Your task to perform on an android device: see creations saved in the google photos Image 0: 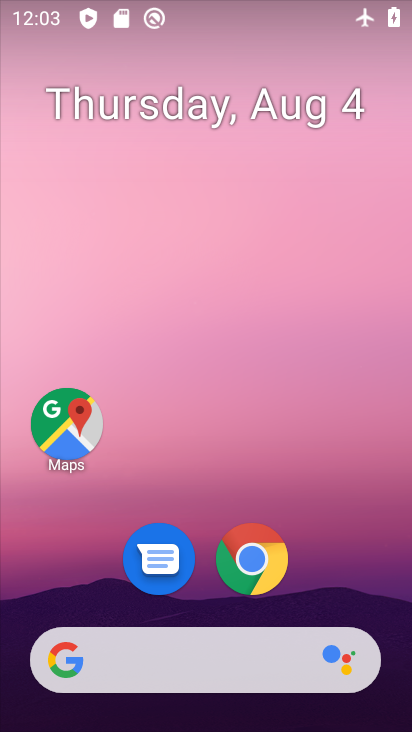
Step 0: drag from (233, 647) to (200, 283)
Your task to perform on an android device: see creations saved in the google photos Image 1: 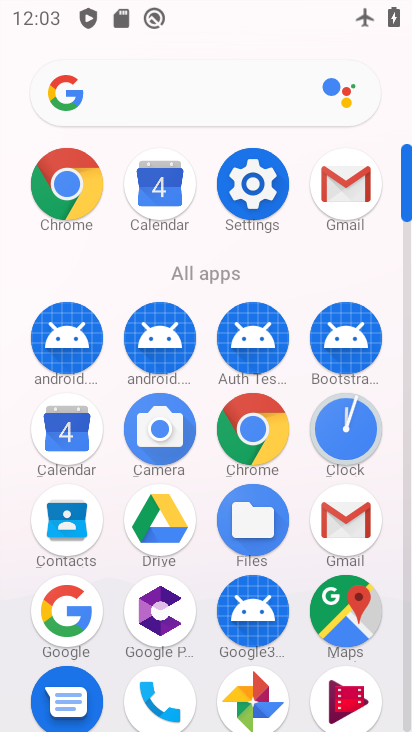
Step 1: click (255, 701)
Your task to perform on an android device: see creations saved in the google photos Image 2: 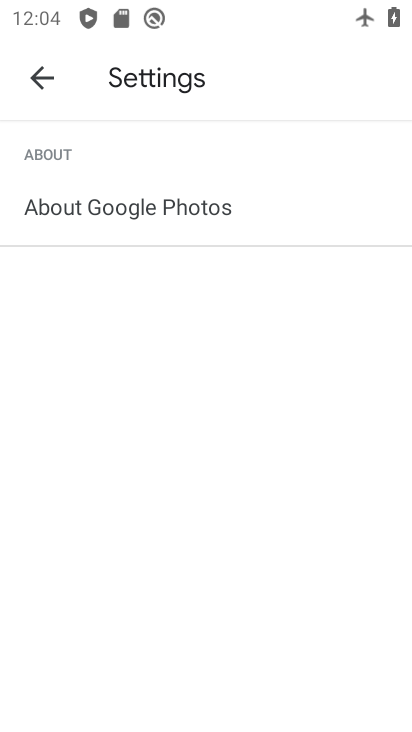
Step 2: press back button
Your task to perform on an android device: see creations saved in the google photos Image 3: 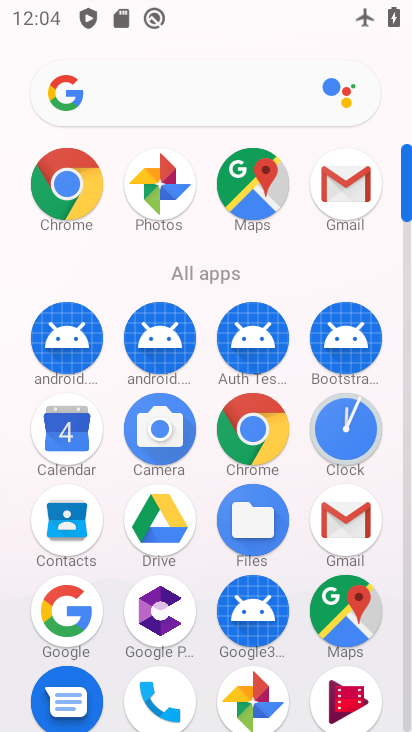
Step 3: click (165, 183)
Your task to perform on an android device: see creations saved in the google photos Image 4: 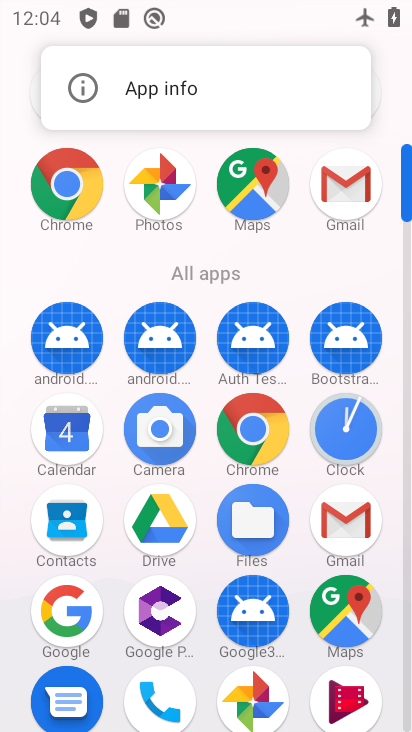
Step 4: click (166, 194)
Your task to perform on an android device: see creations saved in the google photos Image 5: 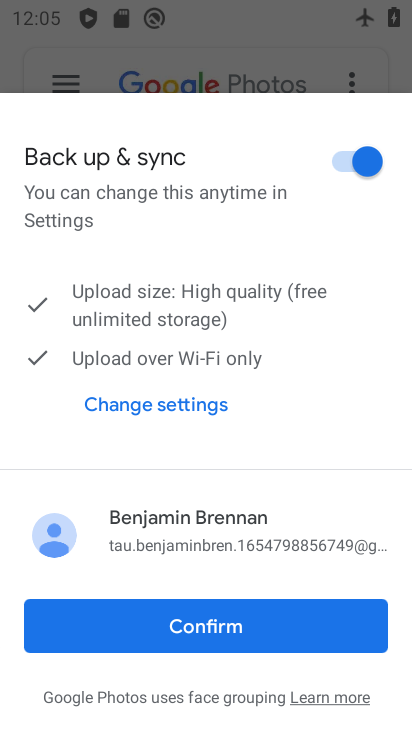
Step 5: click (221, 636)
Your task to perform on an android device: see creations saved in the google photos Image 6: 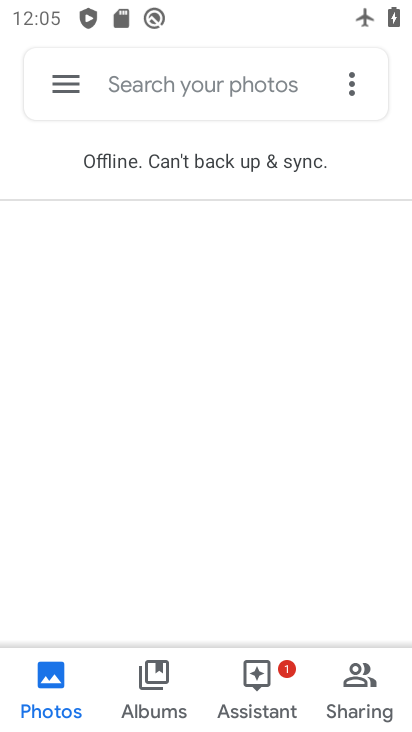
Step 6: click (229, 84)
Your task to perform on an android device: see creations saved in the google photos Image 7: 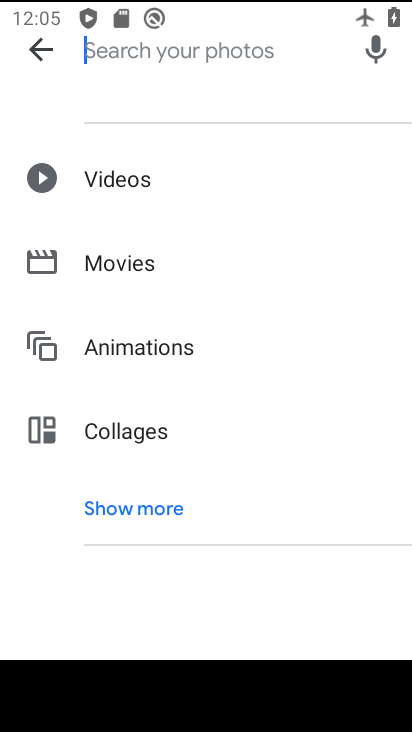
Step 7: click (143, 506)
Your task to perform on an android device: see creations saved in the google photos Image 8: 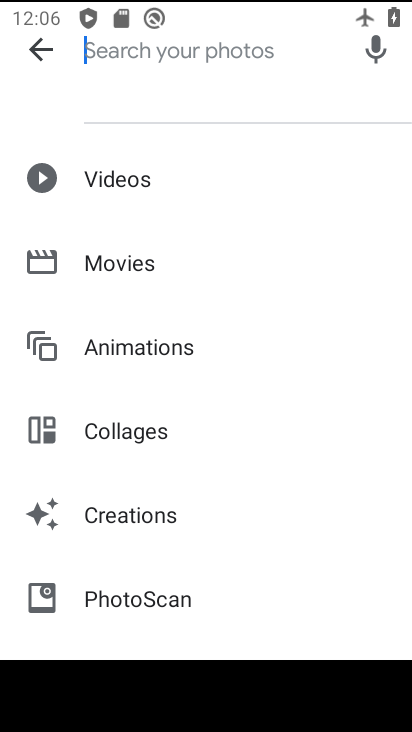
Step 8: drag from (170, 547) to (263, 314)
Your task to perform on an android device: see creations saved in the google photos Image 9: 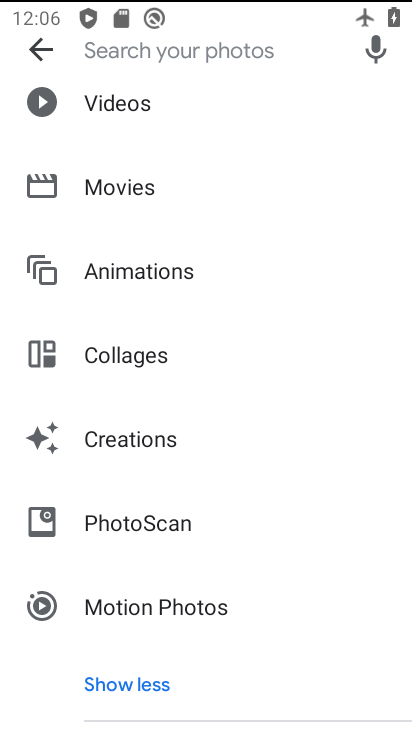
Step 9: click (136, 684)
Your task to perform on an android device: see creations saved in the google photos Image 10: 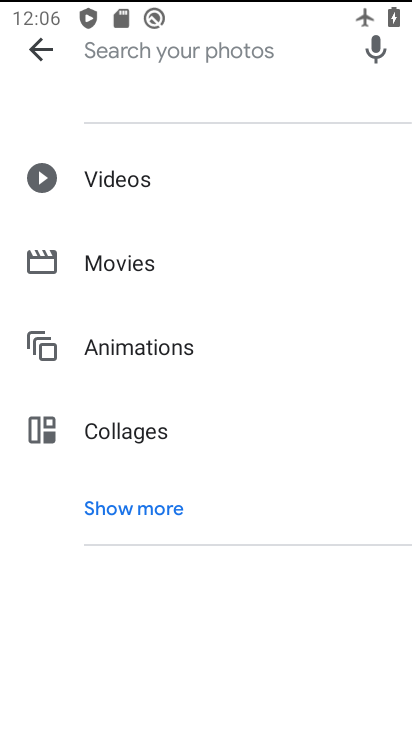
Step 10: click (167, 517)
Your task to perform on an android device: see creations saved in the google photos Image 11: 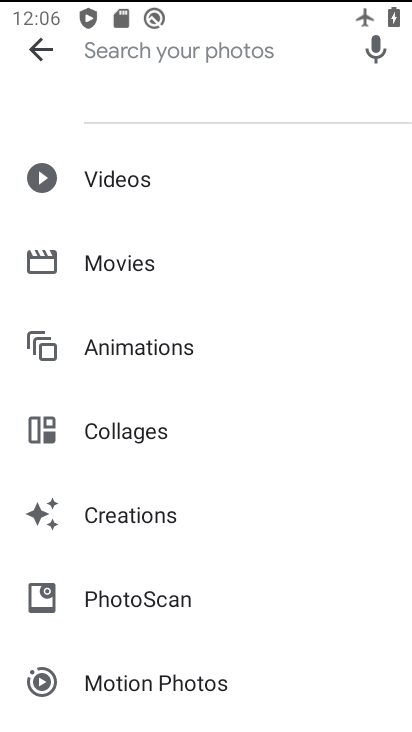
Step 11: click (167, 517)
Your task to perform on an android device: see creations saved in the google photos Image 12: 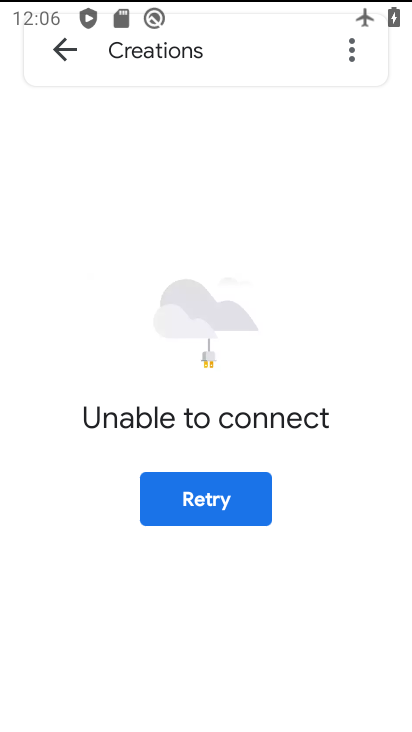
Step 12: click (199, 511)
Your task to perform on an android device: see creations saved in the google photos Image 13: 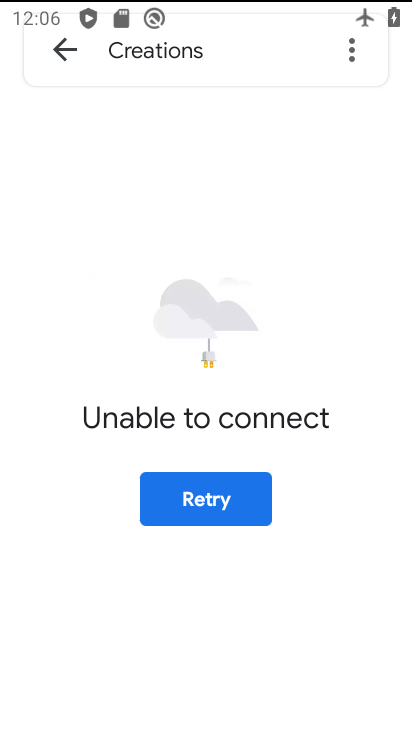
Step 13: click (199, 511)
Your task to perform on an android device: see creations saved in the google photos Image 14: 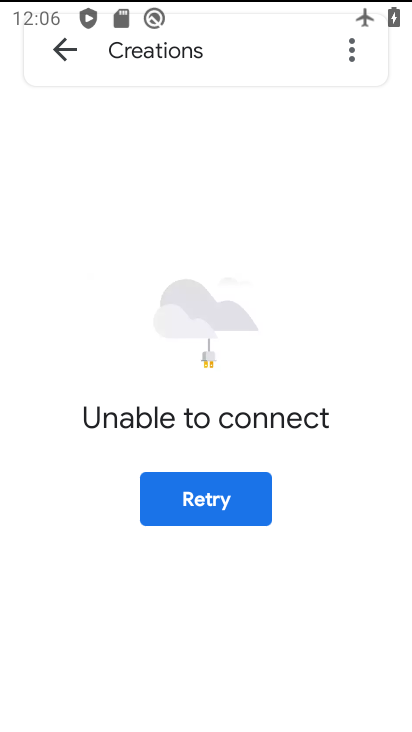
Step 14: task complete